Your task to perform on an android device: Do I have any events today? Image 0: 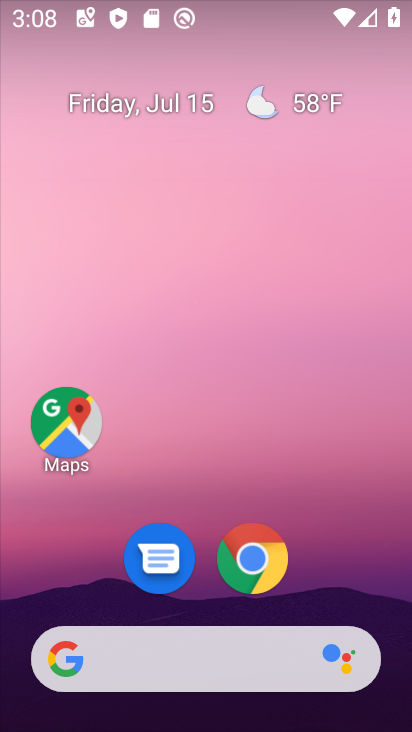
Step 0: drag from (360, 573) to (380, 75)
Your task to perform on an android device: Do I have any events today? Image 1: 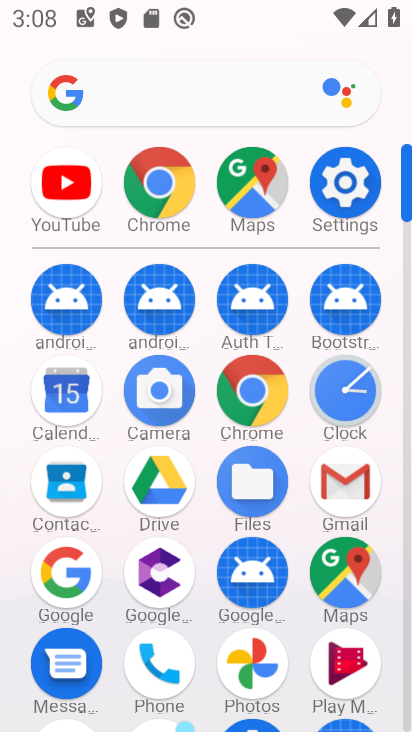
Step 1: click (67, 404)
Your task to perform on an android device: Do I have any events today? Image 2: 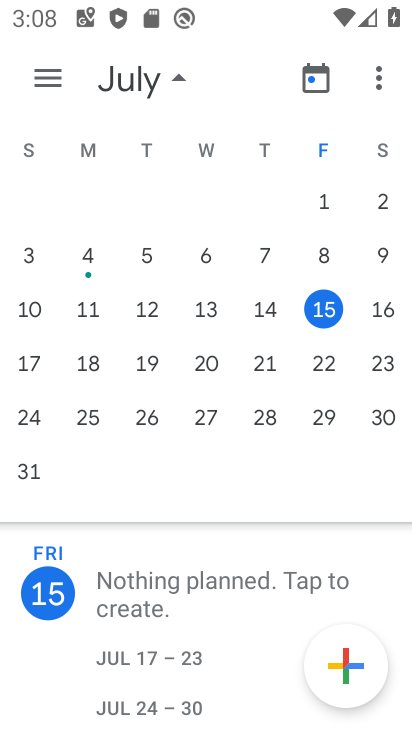
Step 2: task complete